Your task to perform on an android device: turn on data saver in the chrome app Image 0: 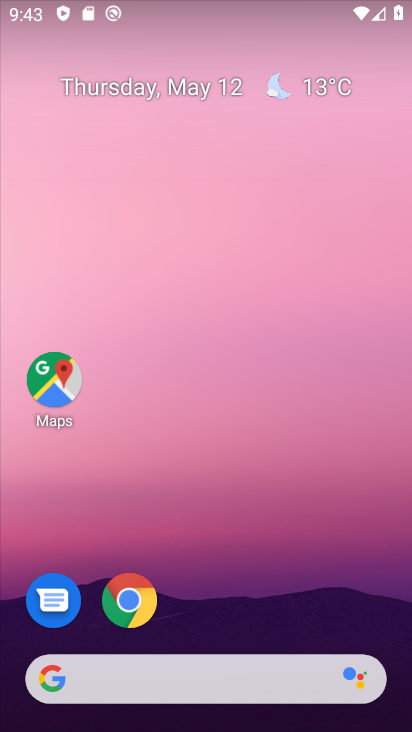
Step 0: click (141, 603)
Your task to perform on an android device: turn on data saver in the chrome app Image 1: 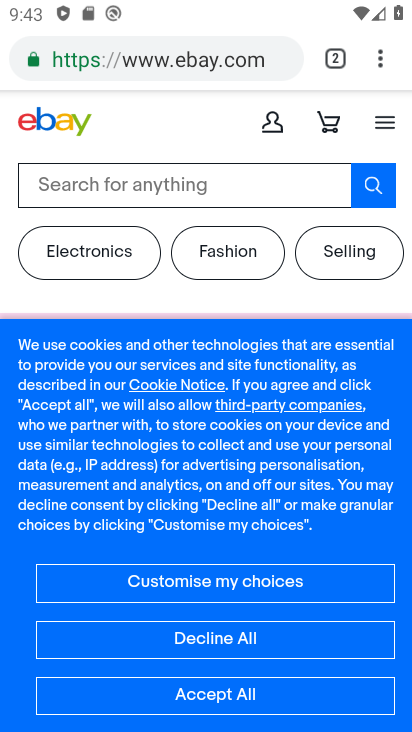
Step 1: click (384, 61)
Your task to perform on an android device: turn on data saver in the chrome app Image 2: 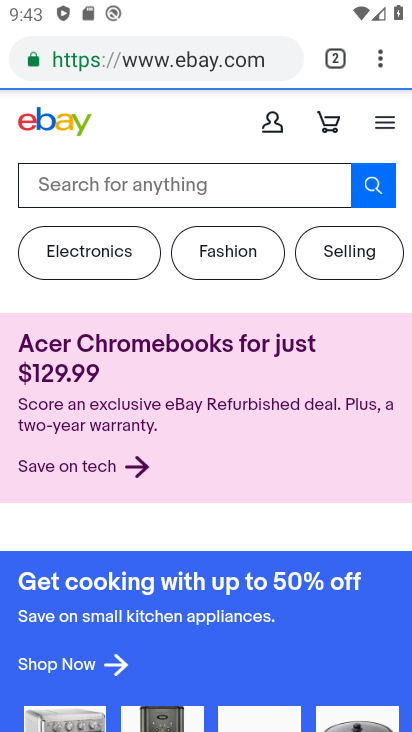
Step 2: drag from (378, 59) to (185, 645)
Your task to perform on an android device: turn on data saver in the chrome app Image 3: 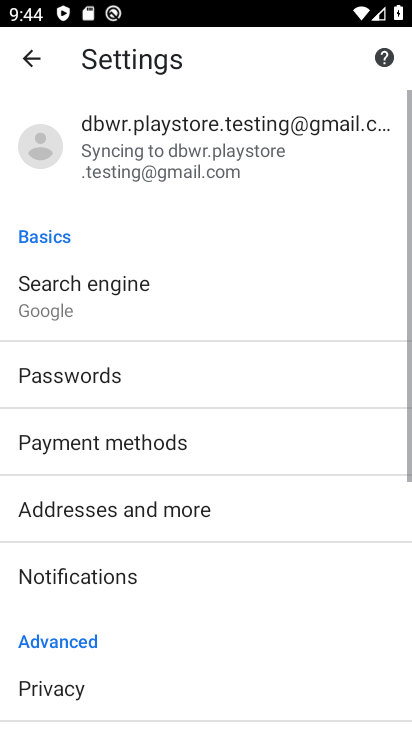
Step 3: drag from (186, 628) to (232, 228)
Your task to perform on an android device: turn on data saver in the chrome app Image 4: 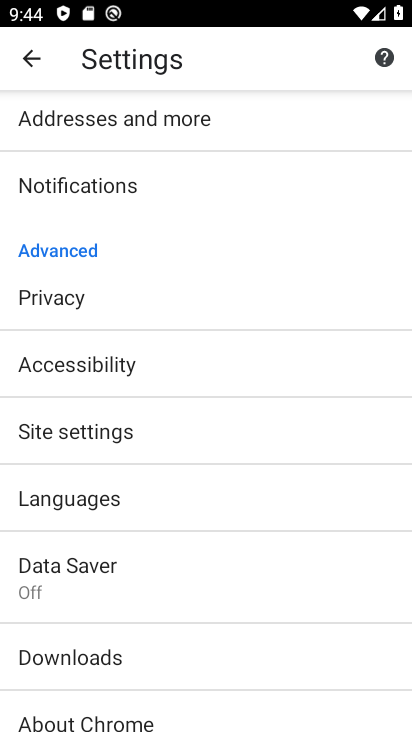
Step 4: click (89, 562)
Your task to perform on an android device: turn on data saver in the chrome app Image 5: 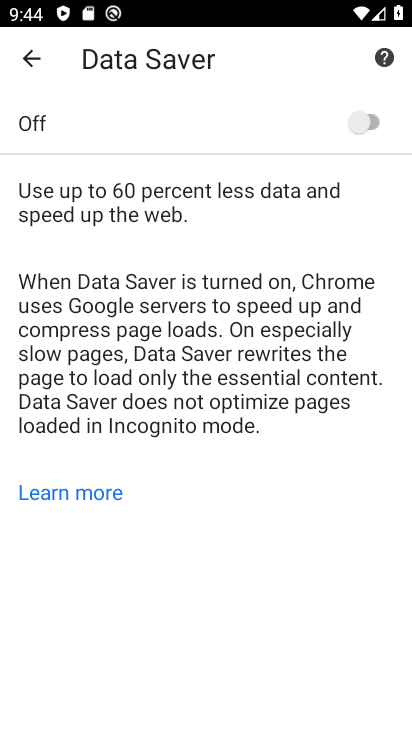
Step 5: click (371, 120)
Your task to perform on an android device: turn on data saver in the chrome app Image 6: 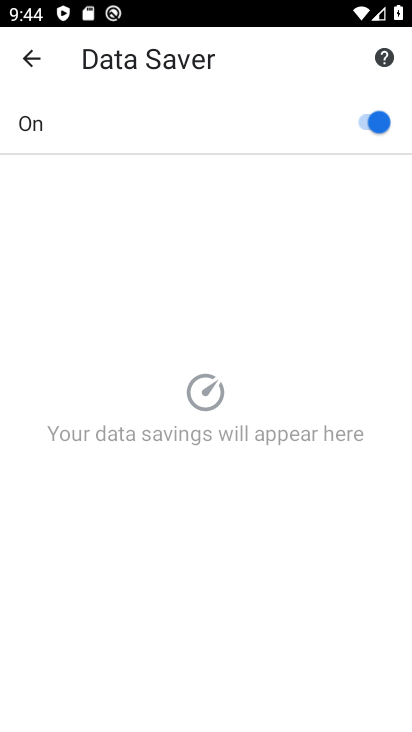
Step 6: task complete